Your task to perform on an android device: delete browsing data in the chrome app Image 0: 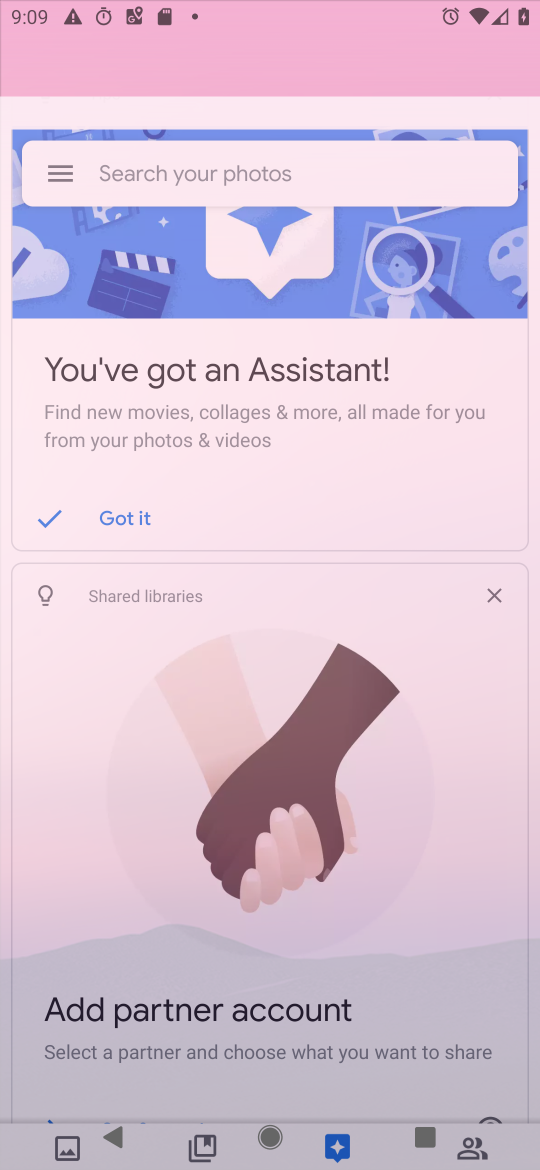
Step 0: click (211, 66)
Your task to perform on an android device: delete browsing data in the chrome app Image 1: 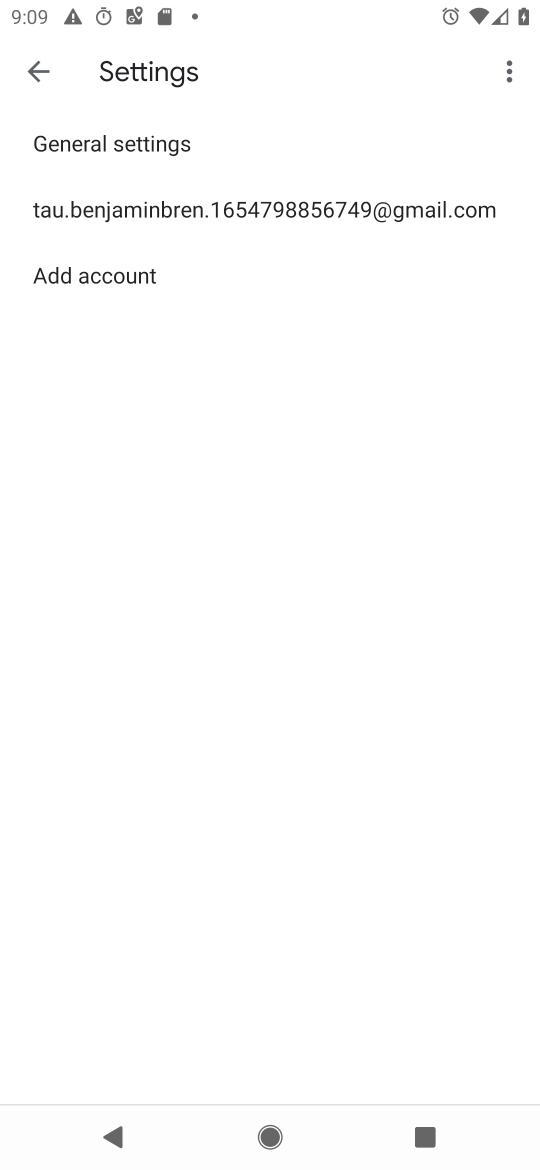
Step 1: press home button
Your task to perform on an android device: delete browsing data in the chrome app Image 2: 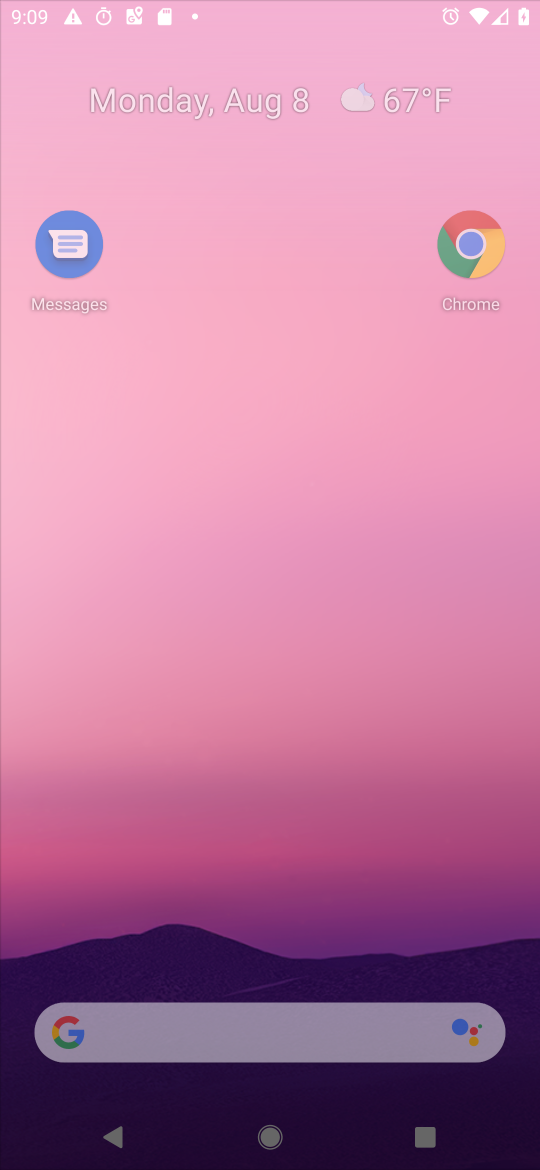
Step 2: drag from (297, 924) to (392, 133)
Your task to perform on an android device: delete browsing data in the chrome app Image 3: 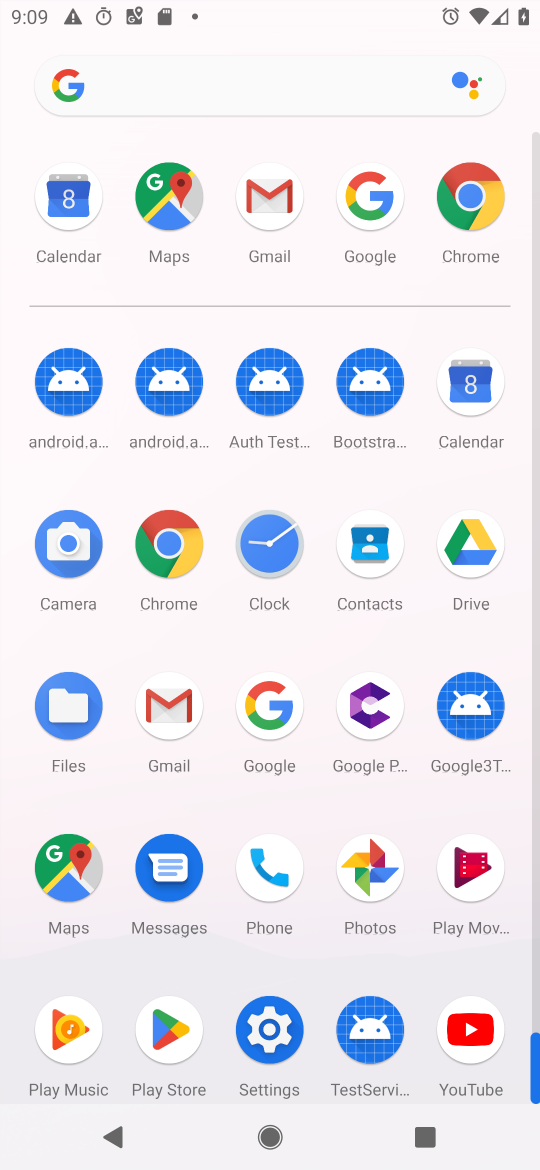
Step 3: drag from (283, 989) to (361, 380)
Your task to perform on an android device: delete browsing data in the chrome app Image 4: 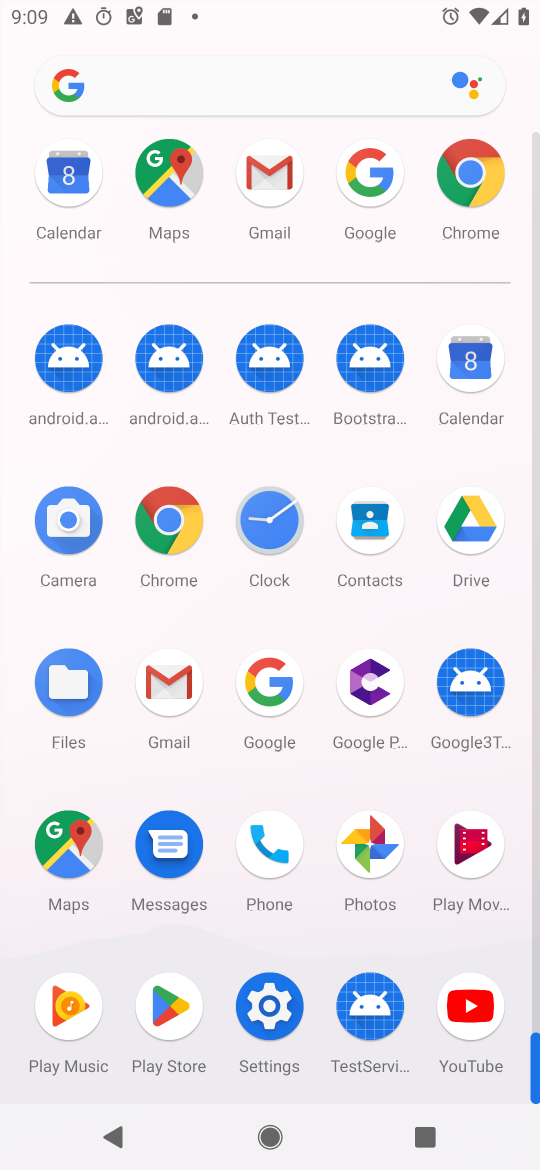
Step 4: click (171, 522)
Your task to perform on an android device: delete browsing data in the chrome app Image 5: 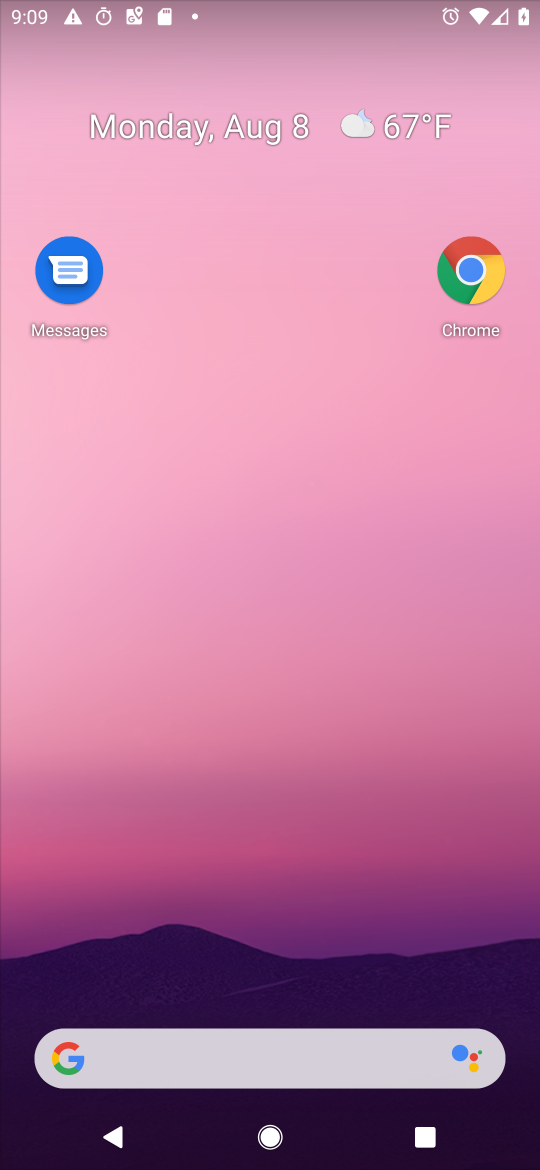
Step 5: click (465, 263)
Your task to perform on an android device: delete browsing data in the chrome app Image 6: 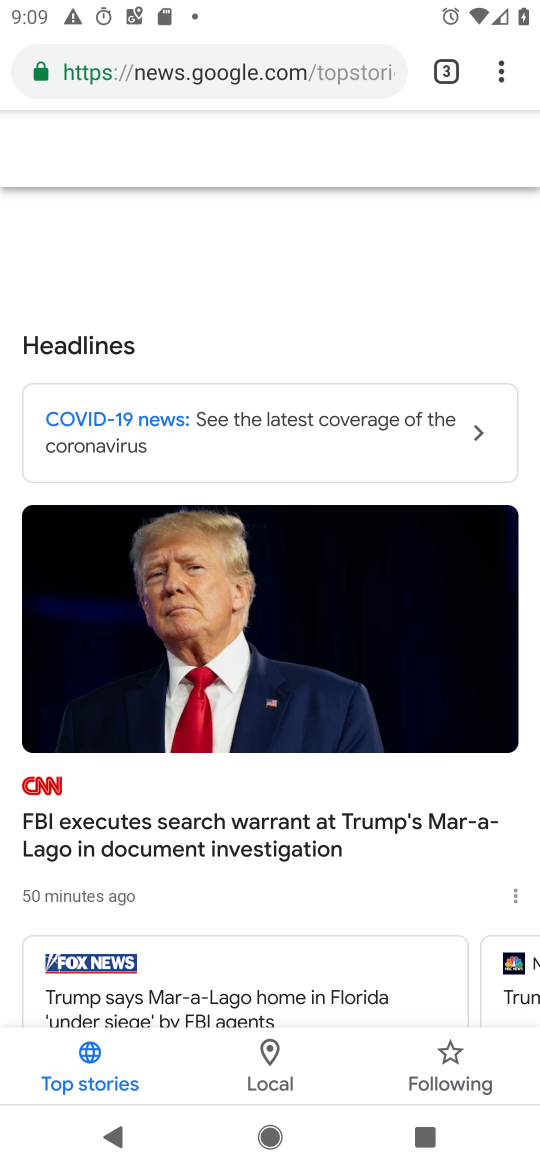
Step 6: drag from (502, 69) to (259, 420)
Your task to perform on an android device: delete browsing data in the chrome app Image 7: 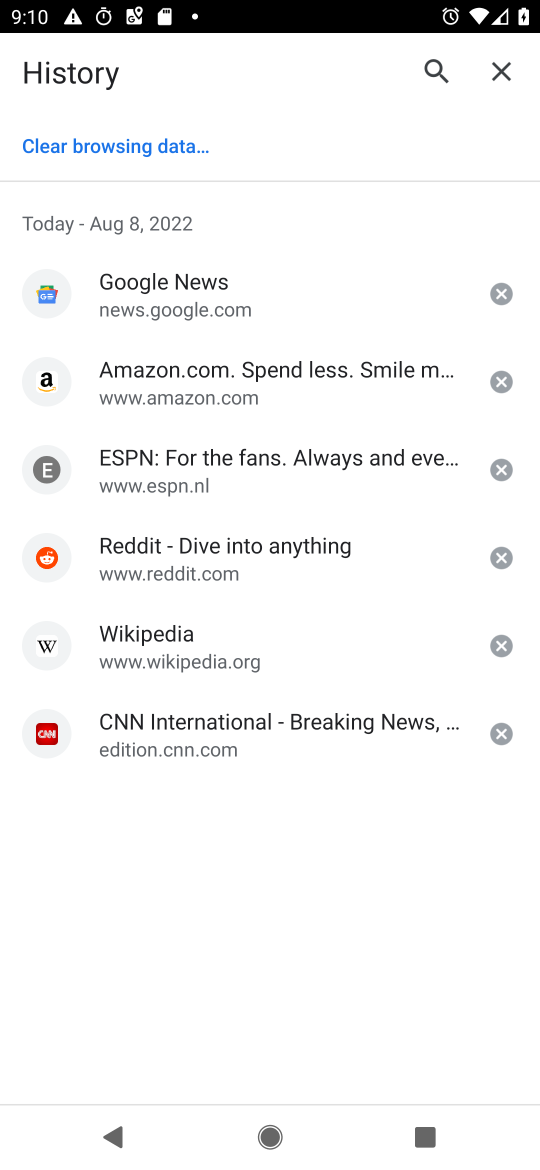
Step 7: click (104, 151)
Your task to perform on an android device: delete browsing data in the chrome app Image 8: 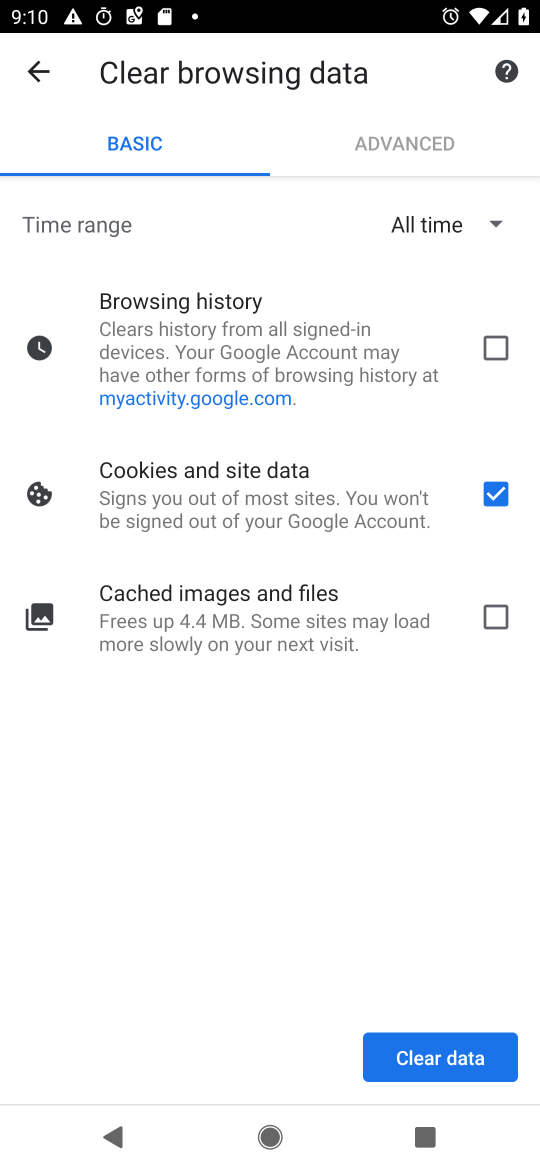
Step 8: click (423, 327)
Your task to perform on an android device: delete browsing data in the chrome app Image 9: 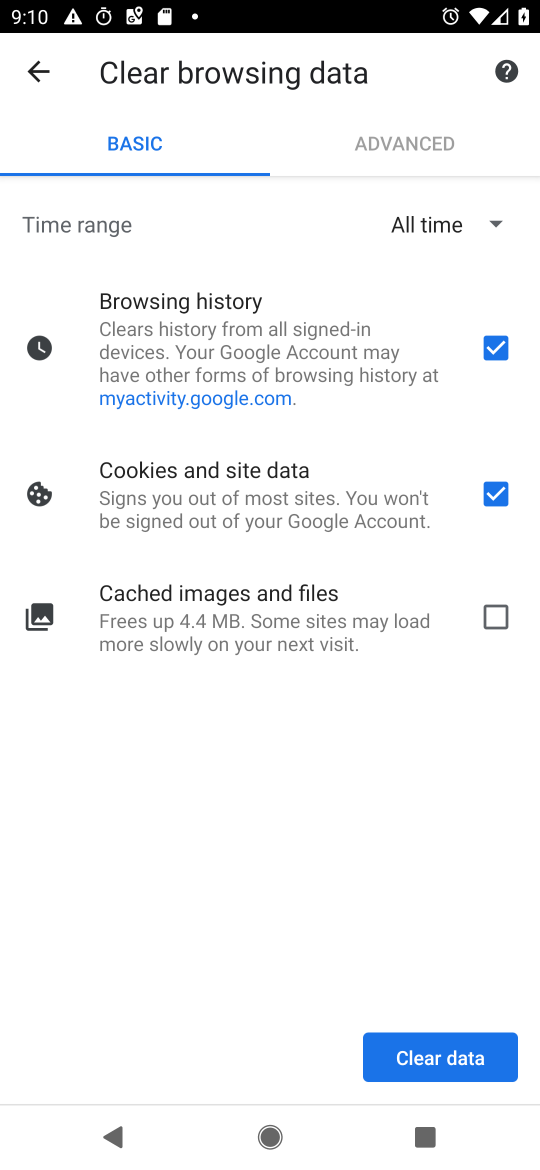
Step 9: click (432, 631)
Your task to perform on an android device: delete browsing data in the chrome app Image 10: 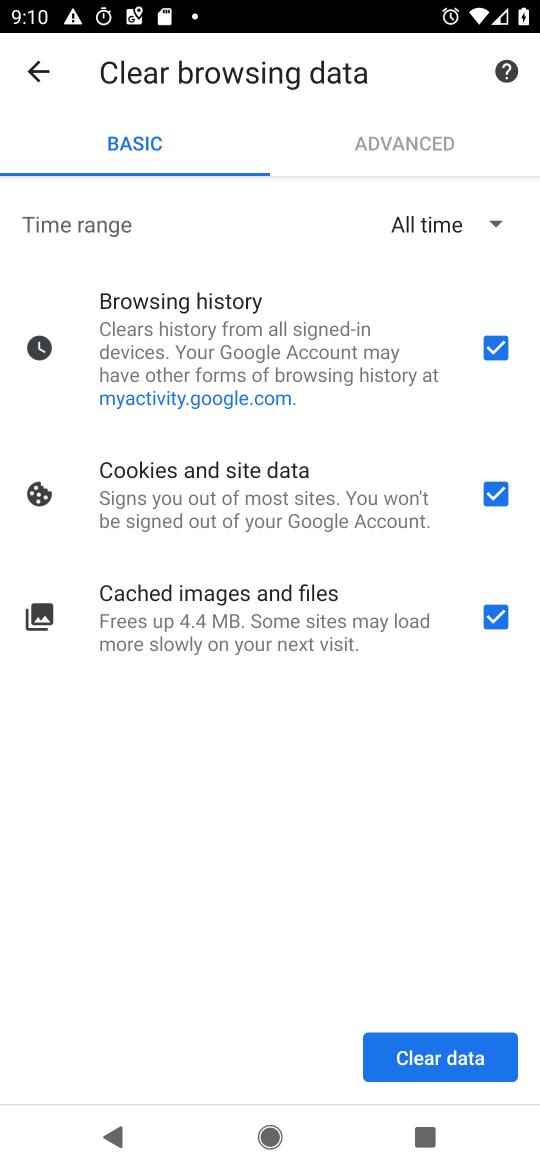
Step 10: click (427, 1060)
Your task to perform on an android device: delete browsing data in the chrome app Image 11: 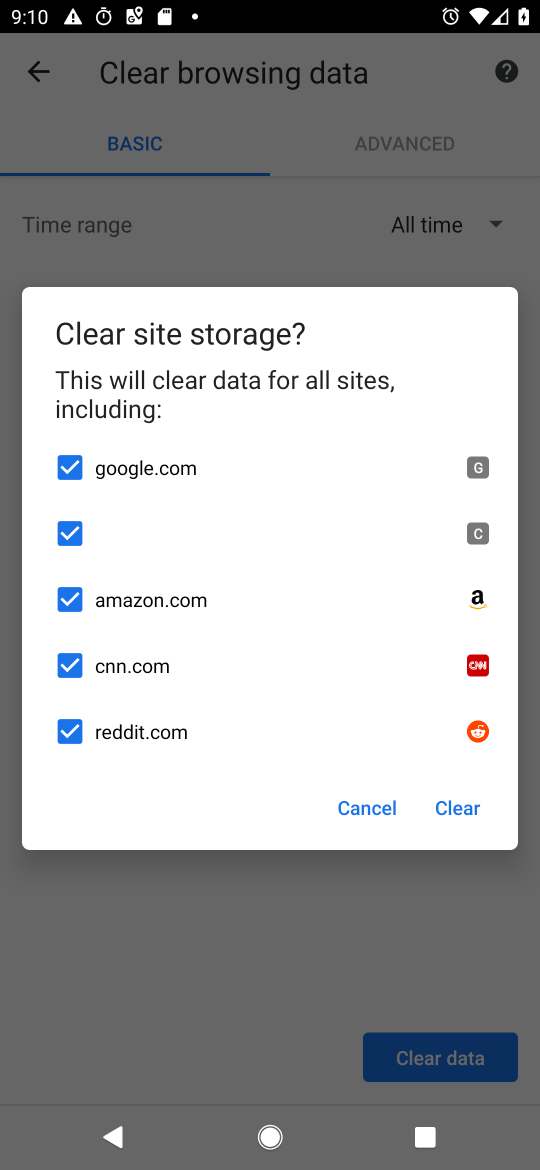
Step 11: click (467, 803)
Your task to perform on an android device: delete browsing data in the chrome app Image 12: 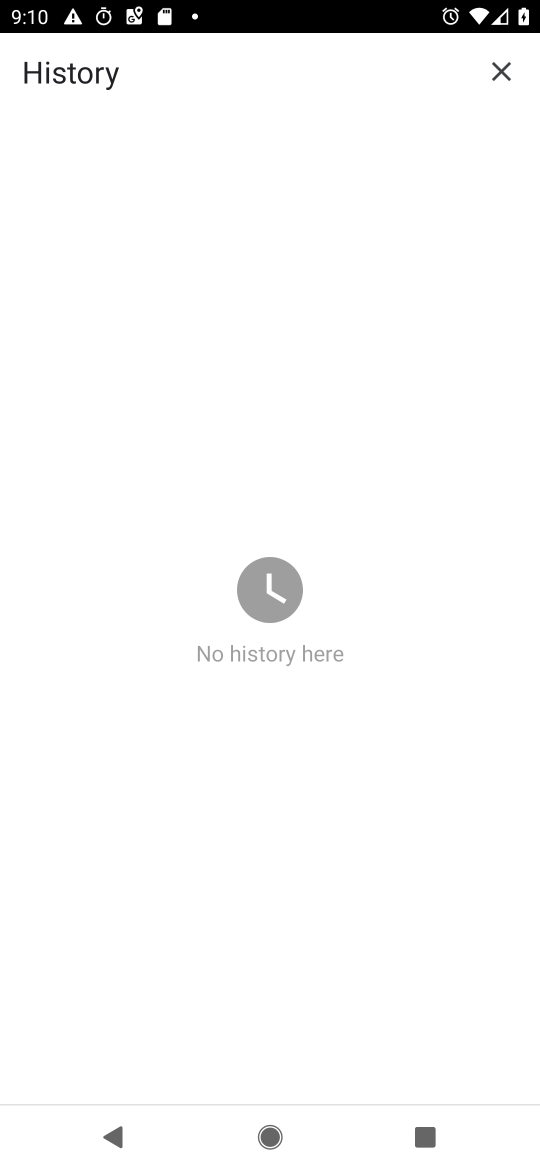
Step 12: task complete